Your task to perform on an android device: Open calendar and show me the third week of next month Image 0: 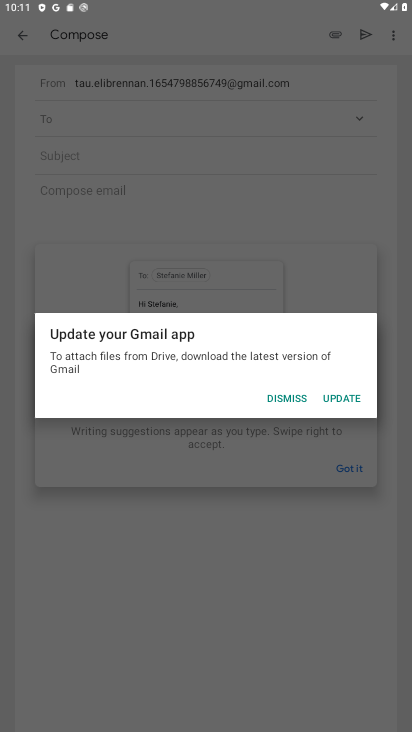
Step 0: press home button
Your task to perform on an android device: Open calendar and show me the third week of next month Image 1: 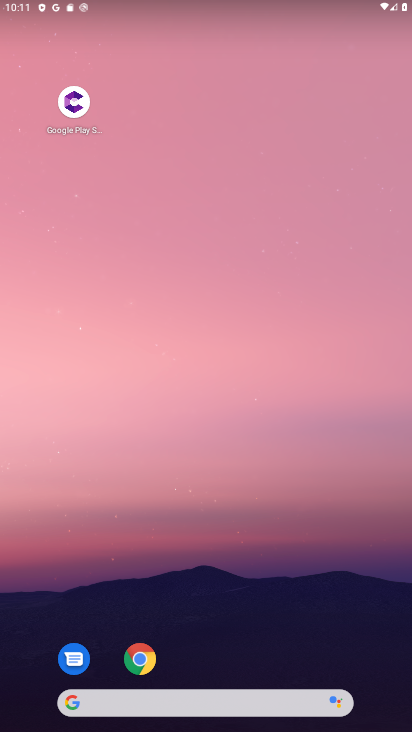
Step 1: drag from (181, 420) to (188, 93)
Your task to perform on an android device: Open calendar and show me the third week of next month Image 2: 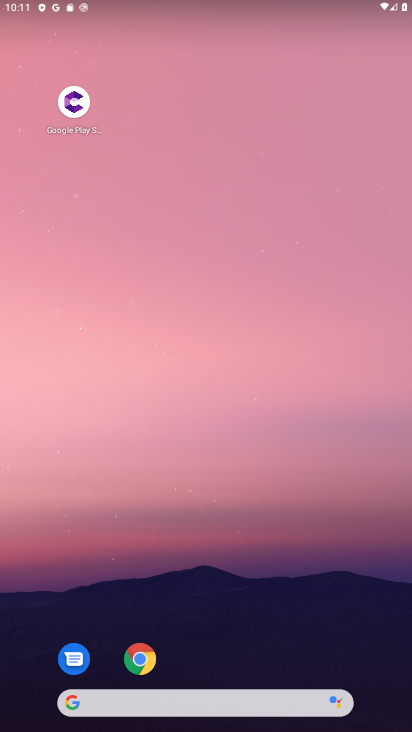
Step 2: drag from (239, 651) to (173, 154)
Your task to perform on an android device: Open calendar and show me the third week of next month Image 3: 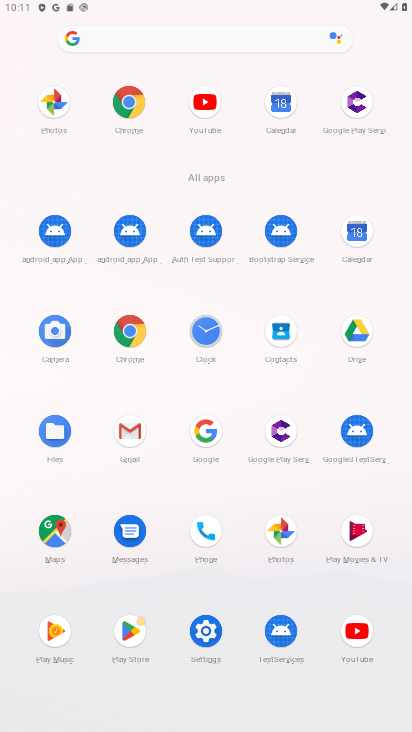
Step 3: click (359, 244)
Your task to perform on an android device: Open calendar and show me the third week of next month Image 4: 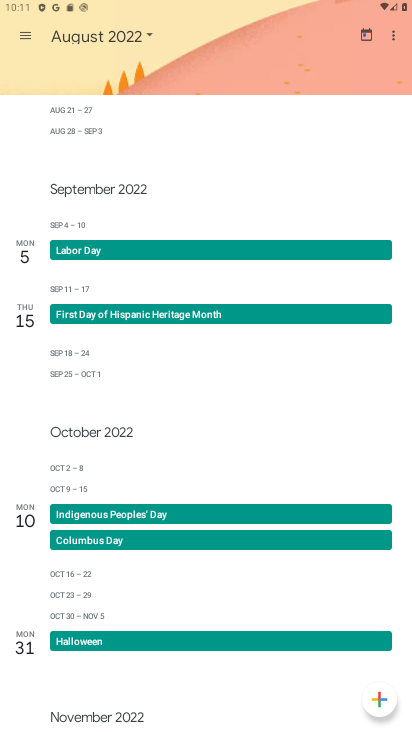
Step 4: click (26, 37)
Your task to perform on an android device: Open calendar and show me the third week of next month Image 5: 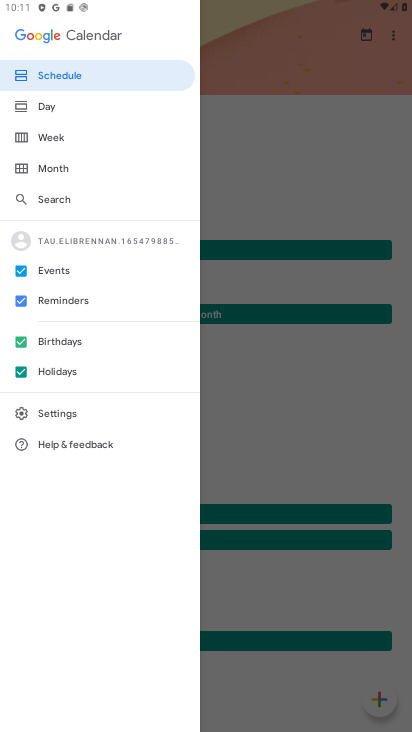
Step 5: click (55, 138)
Your task to perform on an android device: Open calendar and show me the third week of next month Image 6: 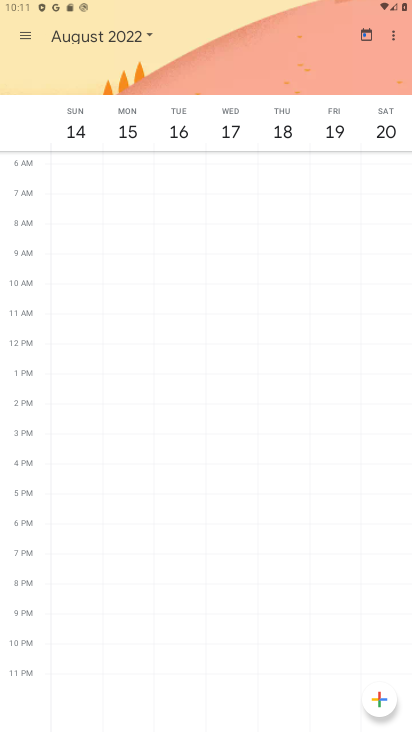
Step 6: click (344, 125)
Your task to perform on an android device: Open calendar and show me the third week of next month Image 7: 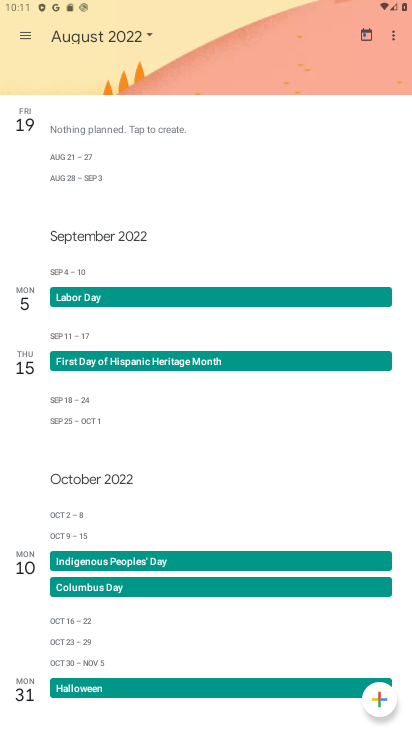
Step 7: click (30, 35)
Your task to perform on an android device: Open calendar and show me the third week of next month Image 8: 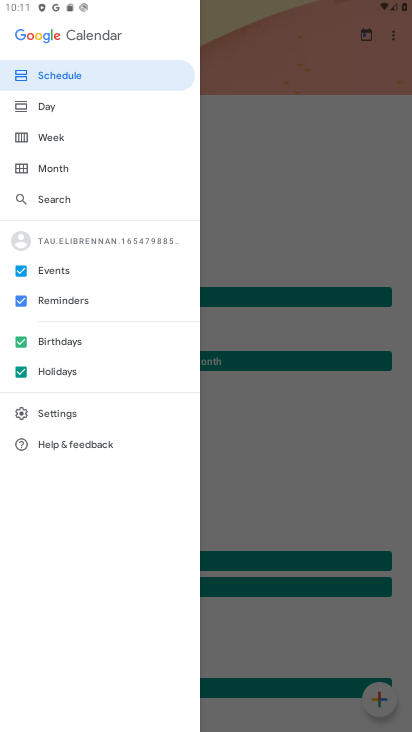
Step 8: click (66, 144)
Your task to perform on an android device: Open calendar and show me the third week of next month Image 9: 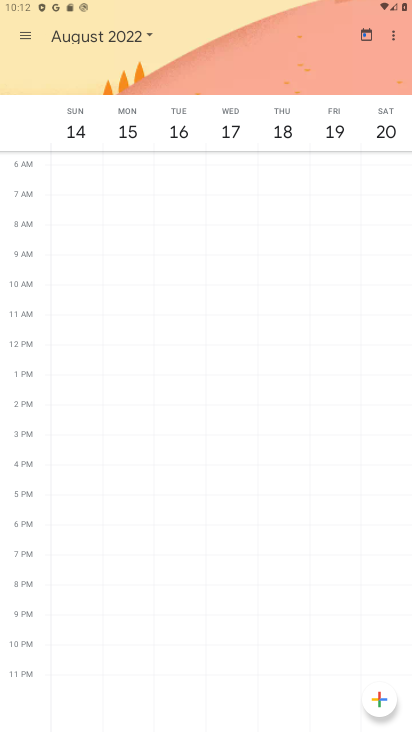
Step 9: task complete